Your task to perform on an android device: add a label to a message in the gmail app Image 0: 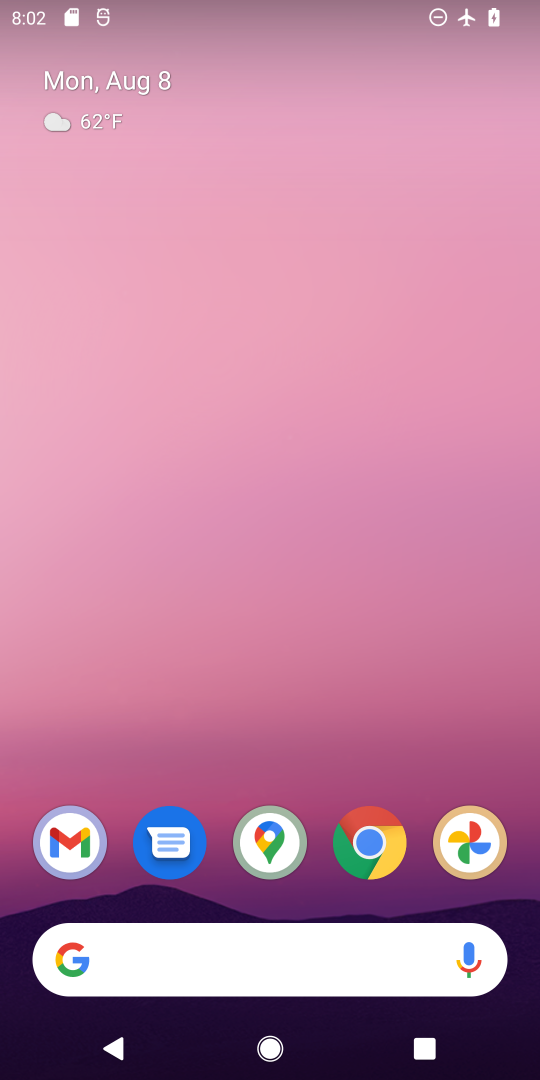
Step 0: drag from (254, 858) to (122, 48)
Your task to perform on an android device: add a label to a message in the gmail app Image 1: 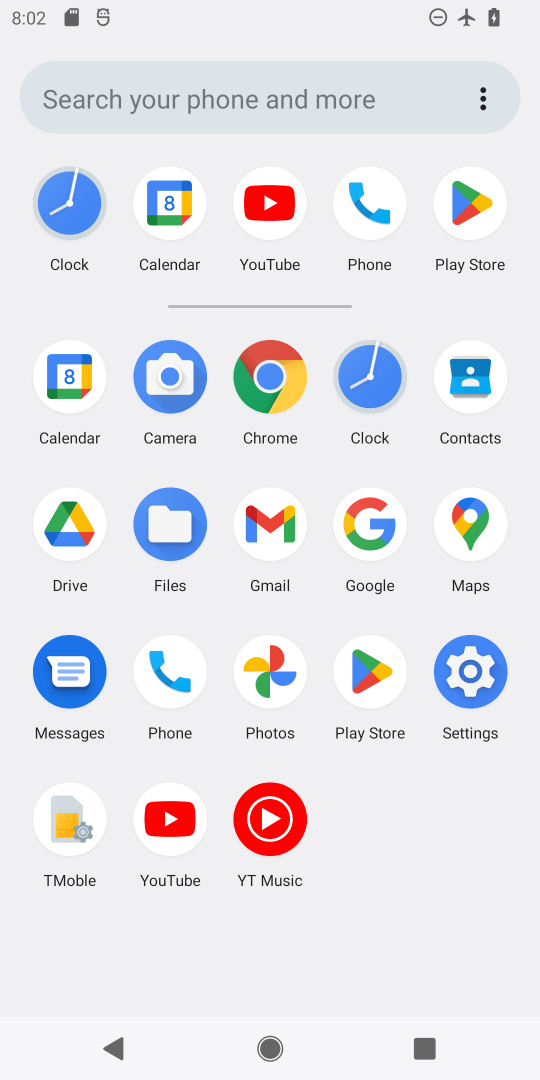
Step 1: click (252, 525)
Your task to perform on an android device: add a label to a message in the gmail app Image 2: 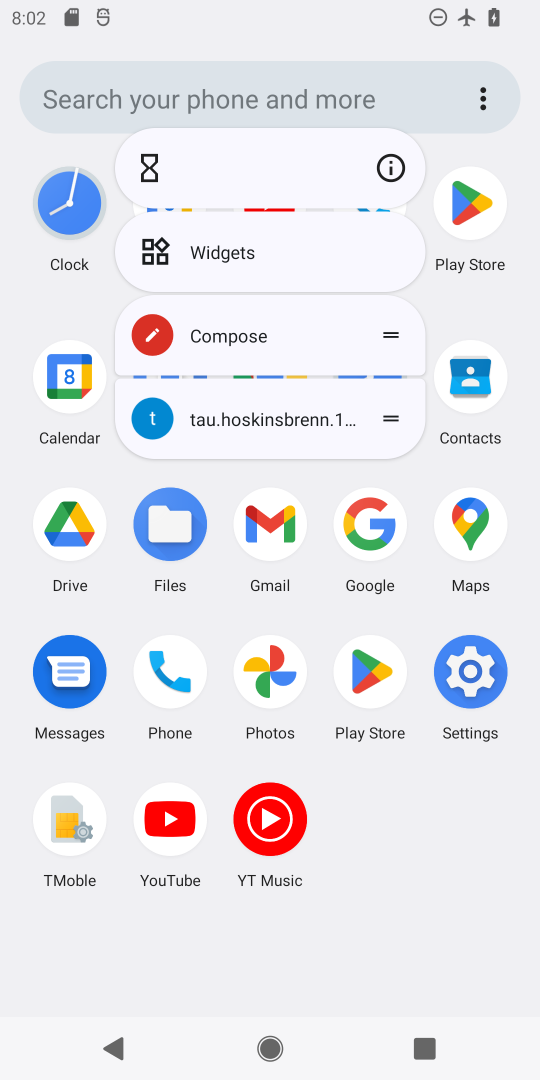
Step 2: click (277, 558)
Your task to perform on an android device: add a label to a message in the gmail app Image 3: 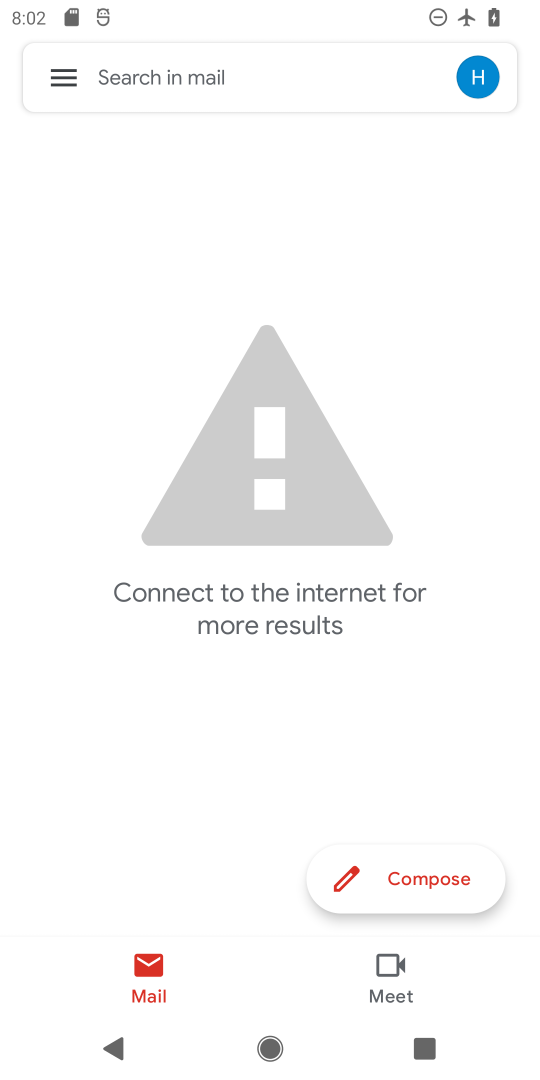
Step 3: task complete